Your task to perform on an android device: allow notifications from all sites in the chrome app Image 0: 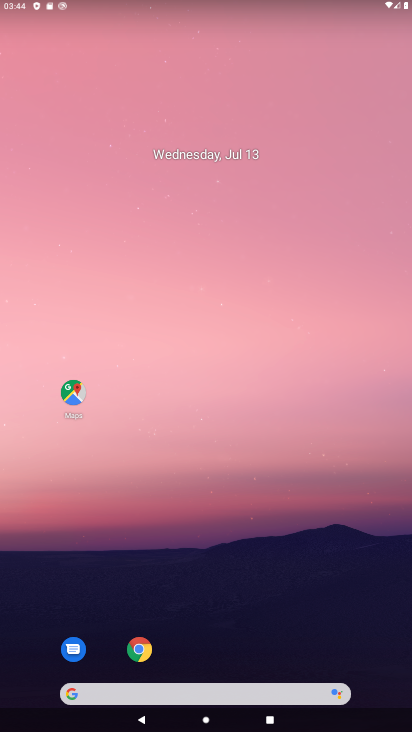
Step 0: click (136, 651)
Your task to perform on an android device: allow notifications from all sites in the chrome app Image 1: 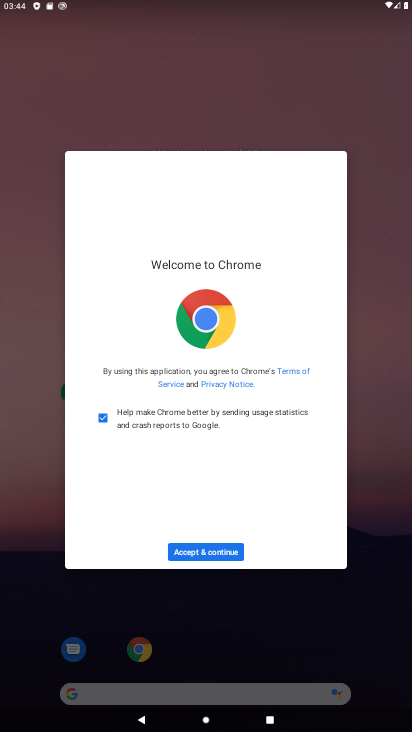
Step 1: click (215, 546)
Your task to perform on an android device: allow notifications from all sites in the chrome app Image 2: 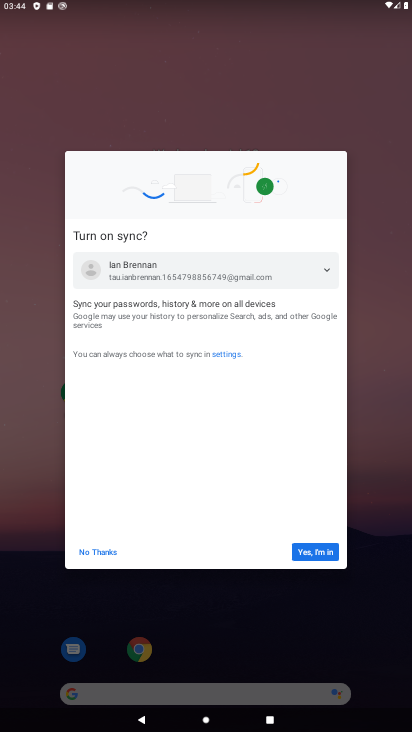
Step 2: click (310, 550)
Your task to perform on an android device: allow notifications from all sites in the chrome app Image 3: 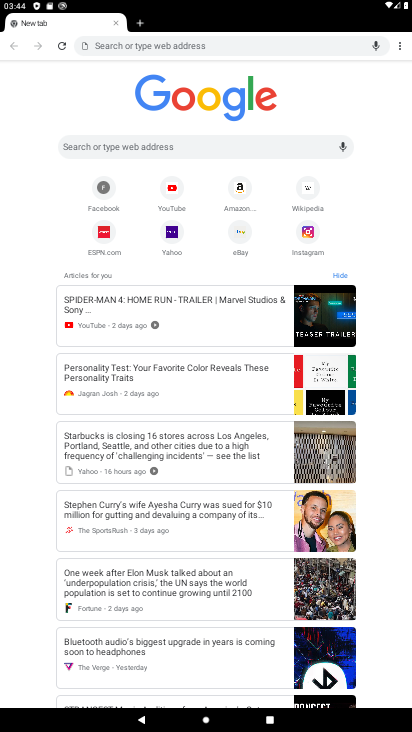
Step 3: click (400, 43)
Your task to perform on an android device: allow notifications from all sites in the chrome app Image 4: 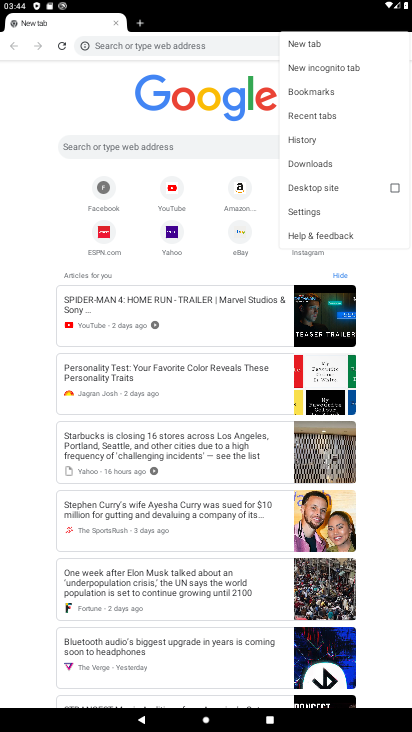
Step 4: click (311, 209)
Your task to perform on an android device: allow notifications from all sites in the chrome app Image 5: 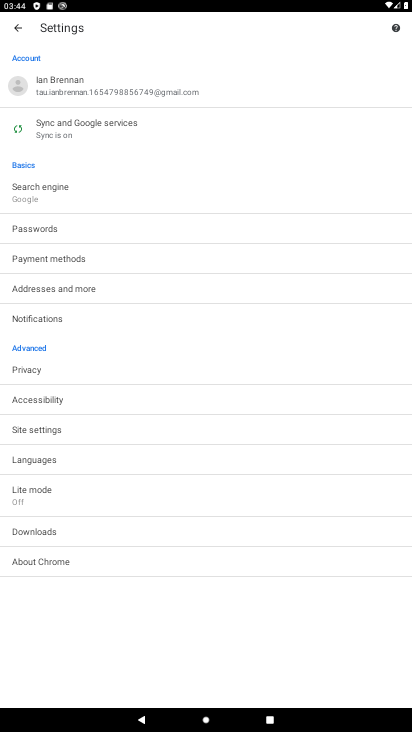
Step 5: click (47, 430)
Your task to perform on an android device: allow notifications from all sites in the chrome app Image 6: 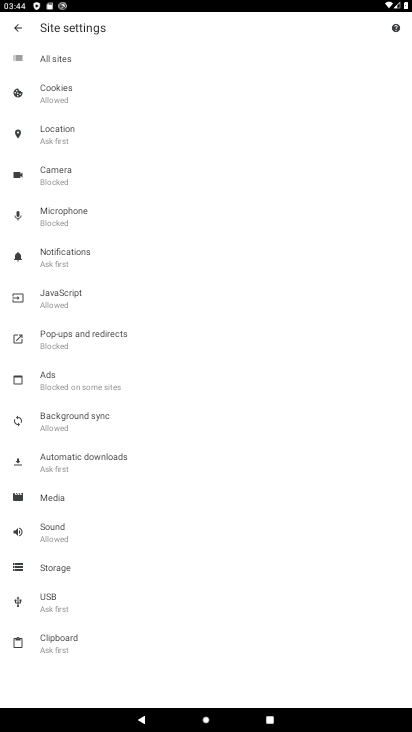
Step 6: click (79, 255)
Your task to perform on an android device: allow notifications from all sites in the chrome app Image 7: 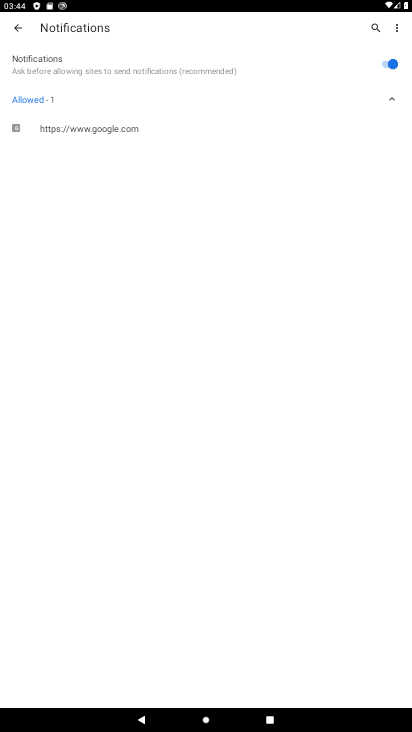
Step 7: task complete